Your task to perform on an android device: install app "Messenger Lite" Image 0: 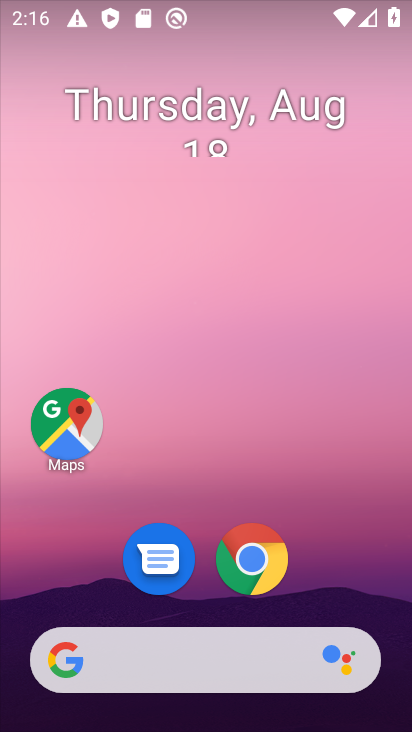
Step 0: drag from (213, 554) to (307, 3)
Your task to perform on an android device: install app "Messenger Lite" Image 1: 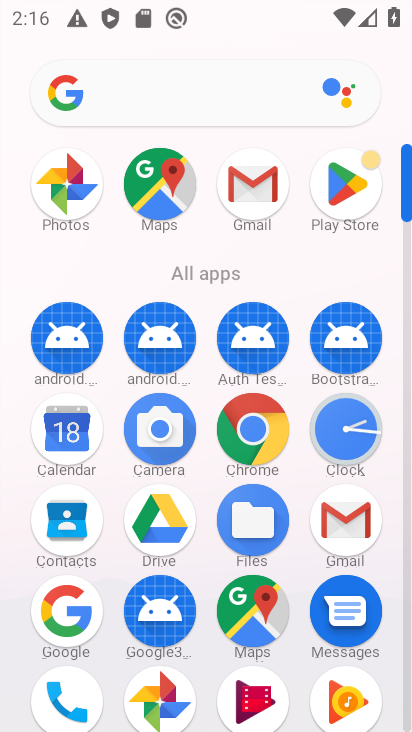
Step 1: click (340, 178)
Your task to perform on an android device: install app "Messenger Lite" Image 2: 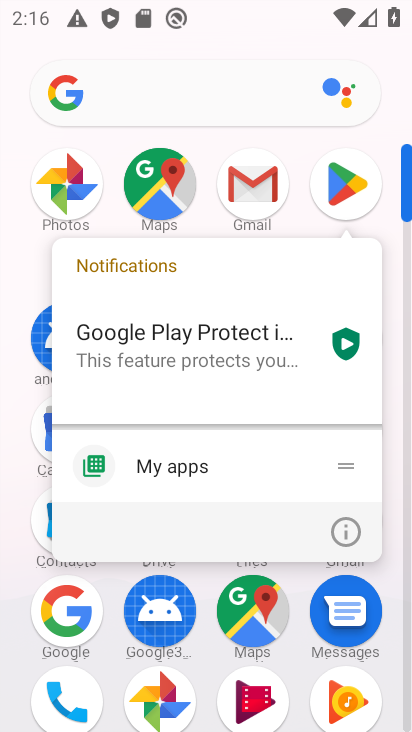
Step 2: click (340, 176)
Your task to perform on an android device: install app "Messenger Lite" Image 3: 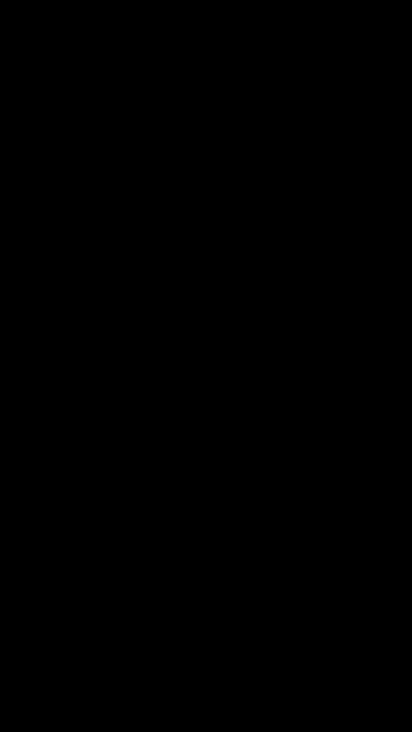
Step 3: press back button
Your task to perform on an android device: install app "Messenger Lite" Image 4: 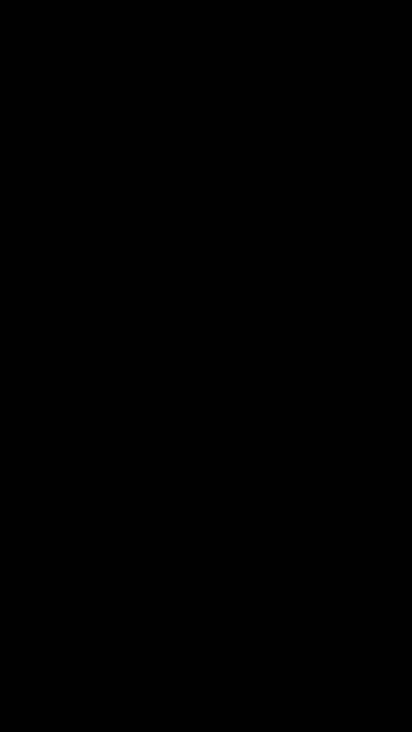
Step 4: press home button
Your task to perform on an android device: install app "Messenger Lite" Image 5: 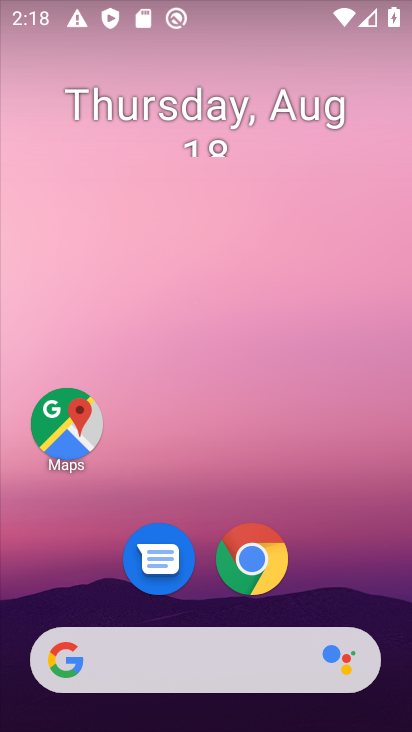
Step 5: drag from (191, 589) to (309, 0)
Your task to perform on an android device: install app "Messenger Lite" Image 6: 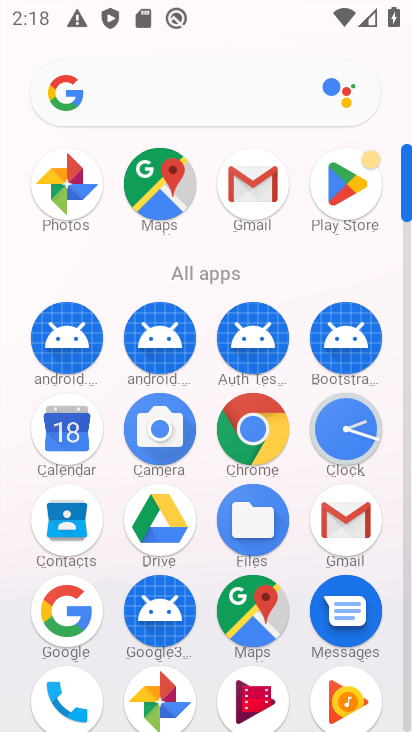
Step 6: click (332, 189)
Your task to perform on an android device: install app "Messenger Lite" Image 7: 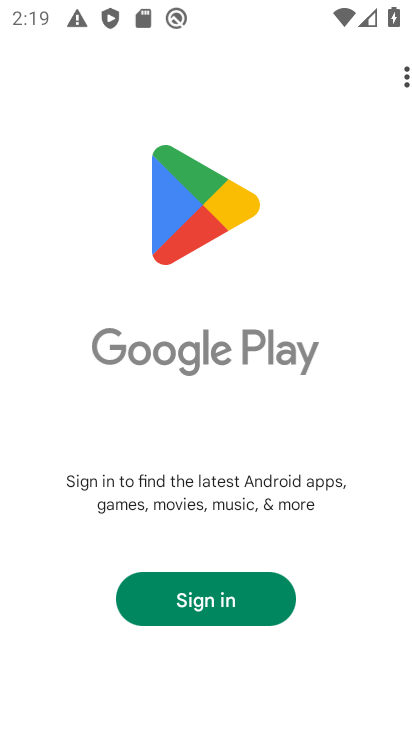
Step 7: click (176, 630)
Your task to perform on an android device: install app "Messenger Lite" Image 8: 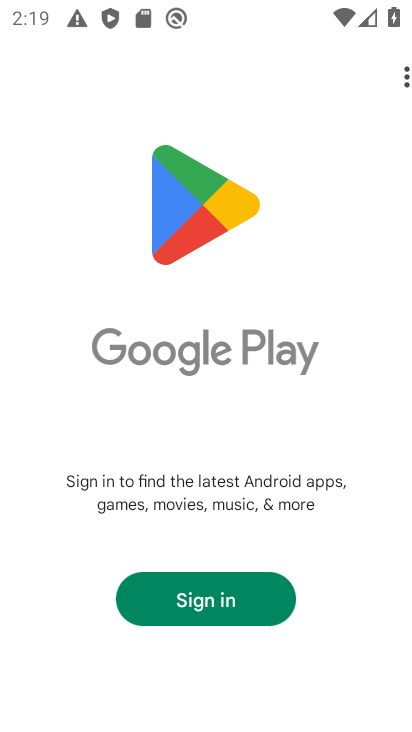
Step 8: click (179, 602)
Your task to perform on an android device: install app "Messenger Lite" Image 9: 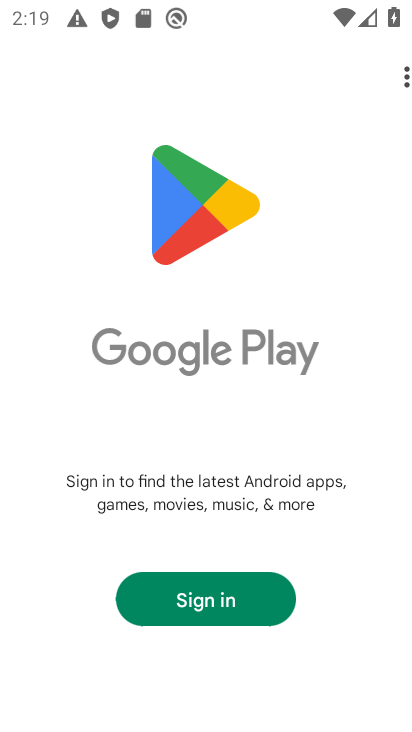
Step 9: click (194, 596)
Your task to perform on an android device: install app "Messenger Lite" Image 10: 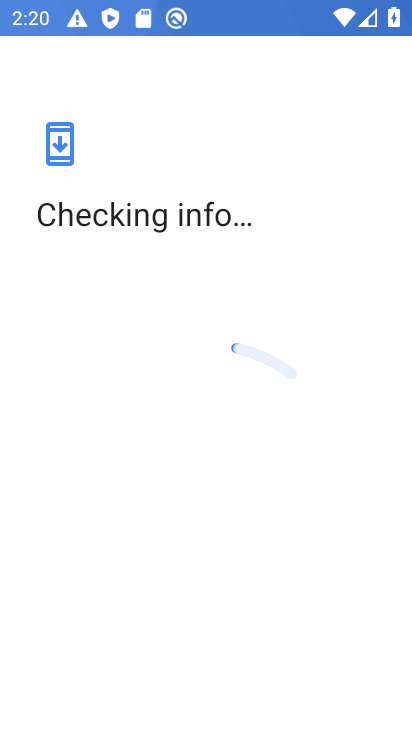
Step 10: task complete